Your task to perform on an android device: Open display settings Image 0: 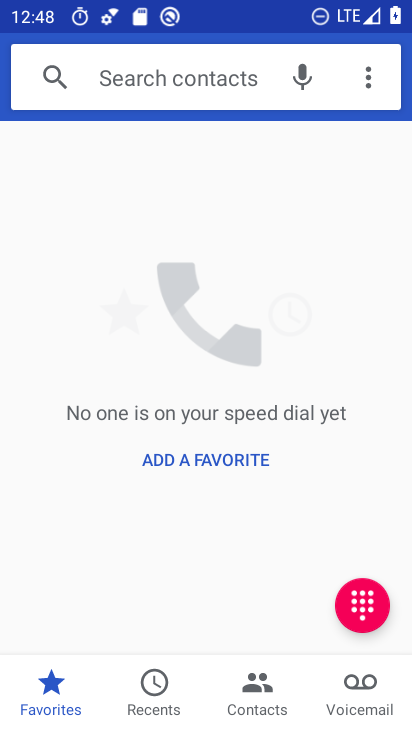
Step 0: press back button
Your task to perform on an android device: Open display settings Image 1: 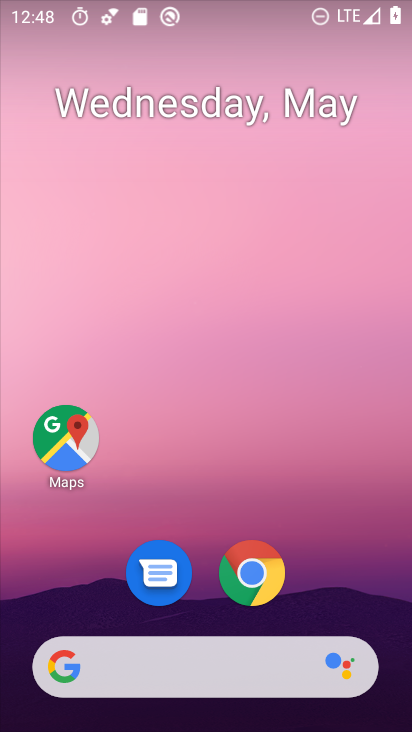
Step 1: drag from (379, 568) to (241, 7)
Your task to perform on an android device: Open display settings Image 2: 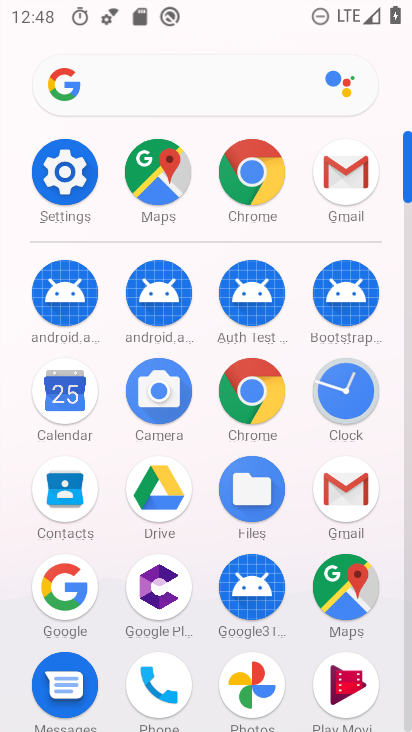
Step 2: drag from (17, 613) to (13, 281)
Your task to perform on an android device: Open display settings Image 3: 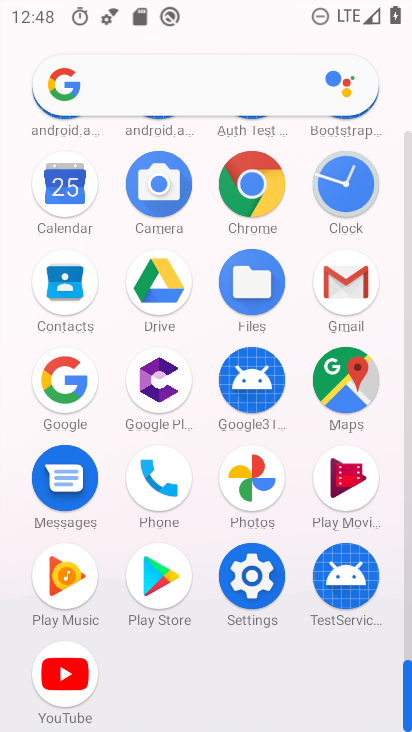
Step 3: click (251, 571)
Your task to perform on an android device: Open display settings Image 4: 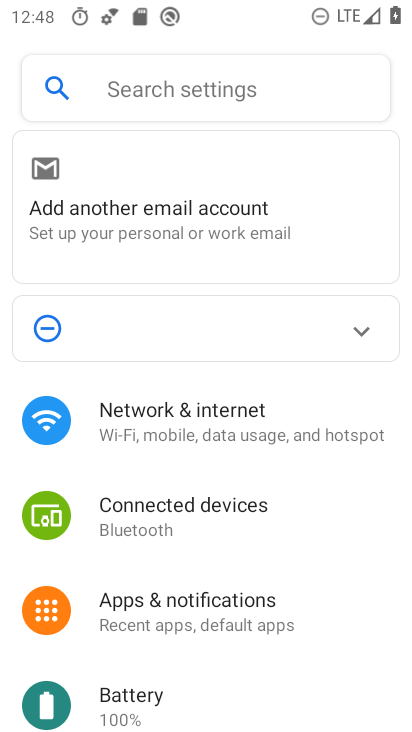
Step 4: drag from (340, 644) to (343, 250)
Your task to perform on an android device: Open display settings Image 5: 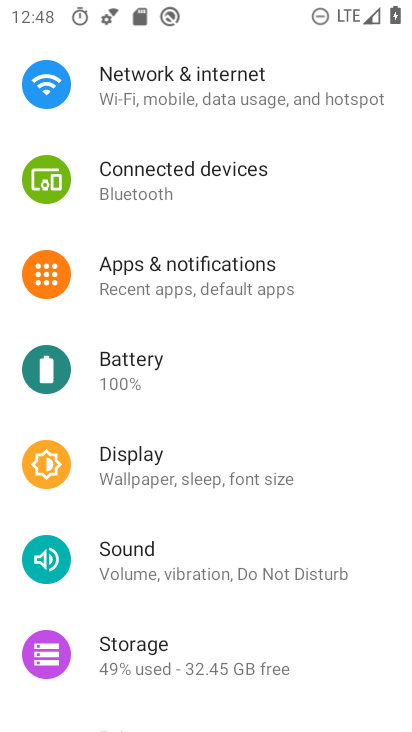
Step 5: click (224, 478)
Your task to perform on an android device: Open display settings Image 6: 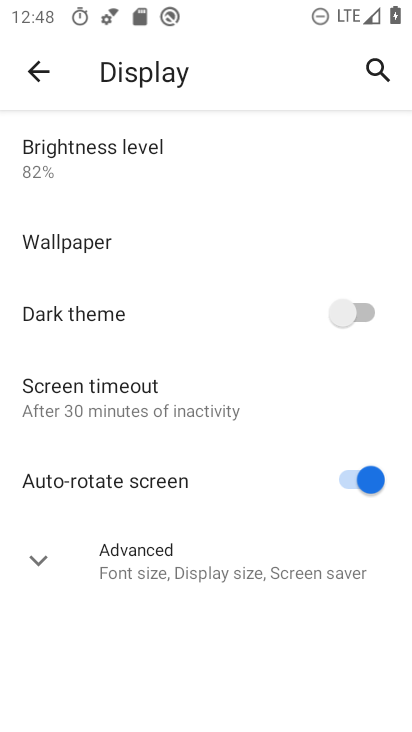
Step 6: click (46, 564)
Your task to perform on an android device: Open display settings Image 7: 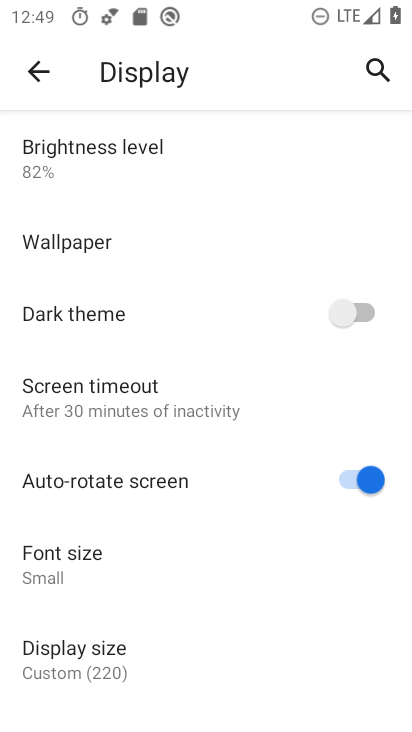
Step 7: task complete